Your task to perform on an android device: Go to notification settings Image 0: 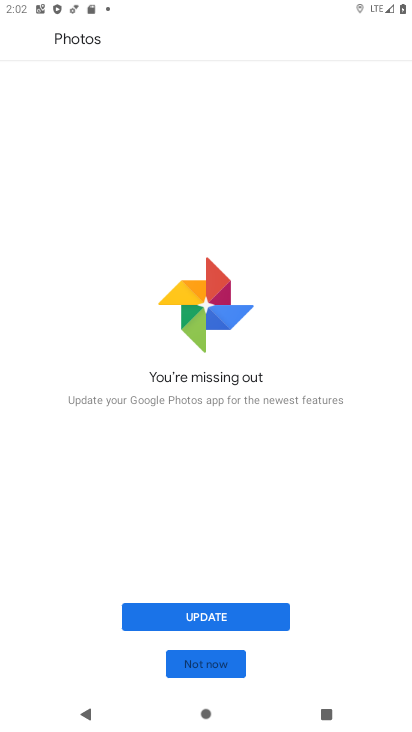
Step 0: press home button
Your task to perform on an android device: Go to notification settings Image 1: 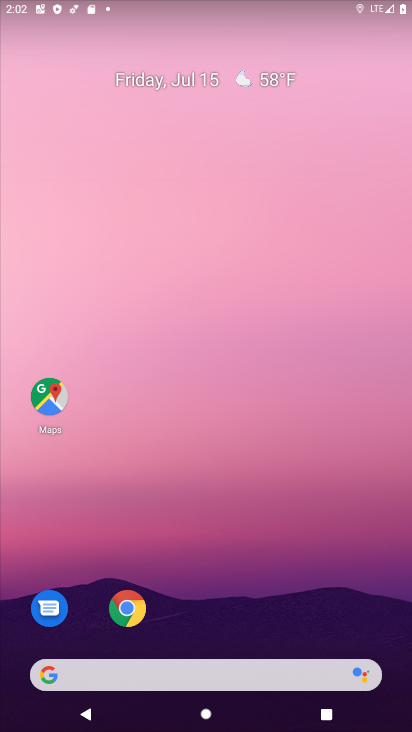
Step 1: drag from (258, 582) to (253, 57)
Your task to perform on an android device: Go to notification settings Image 2: 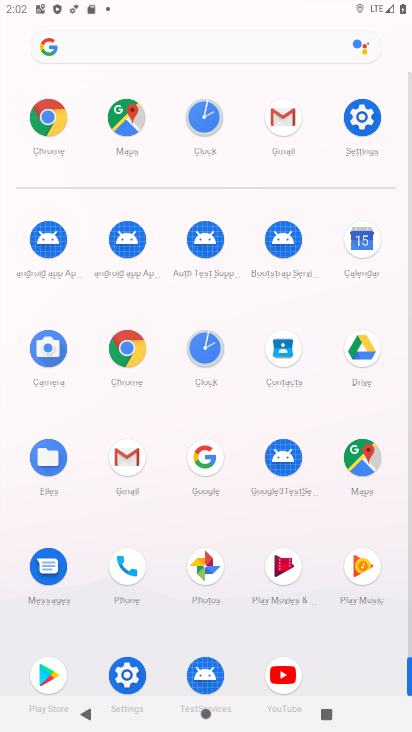
Step 2: click (127, 677)
Your task to perform on an android device: Go to notification settings Image 3: 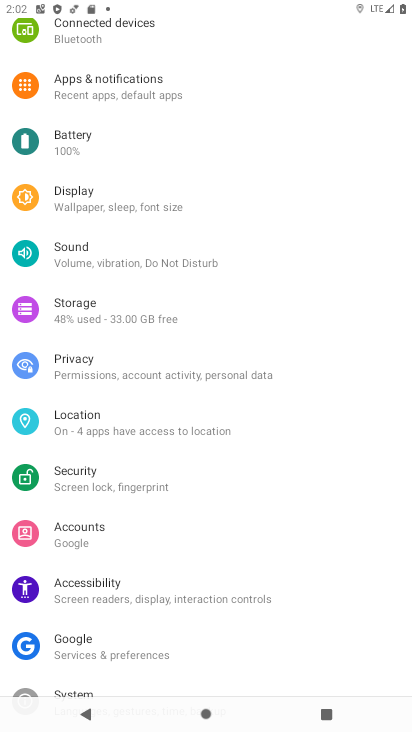
Step 3: click (138, 86)
Your task to perform on an android device: Go to notification settings Image 4: 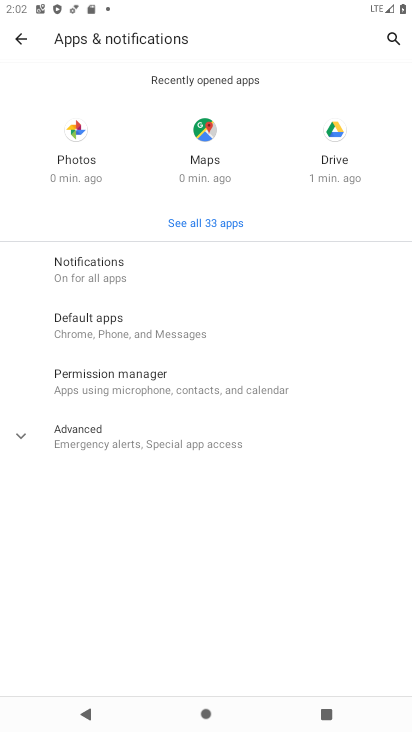
Step 4: click (76, 266)
Your task to perform on an android device: Go to notification settings Image 5: 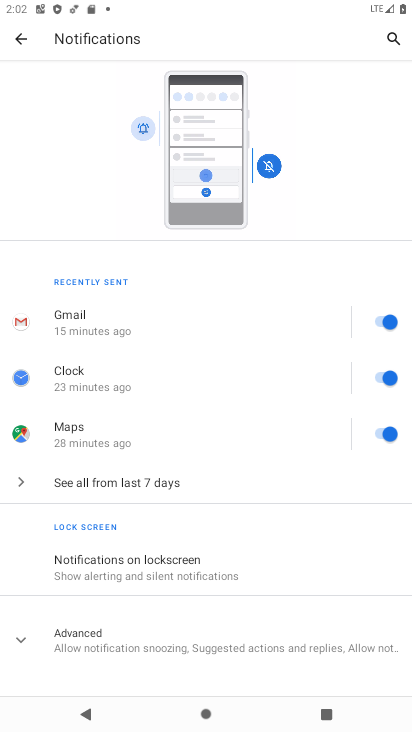
Step 5: task complete